Your task to perform on an android device: Open accessibility settings Image 0: 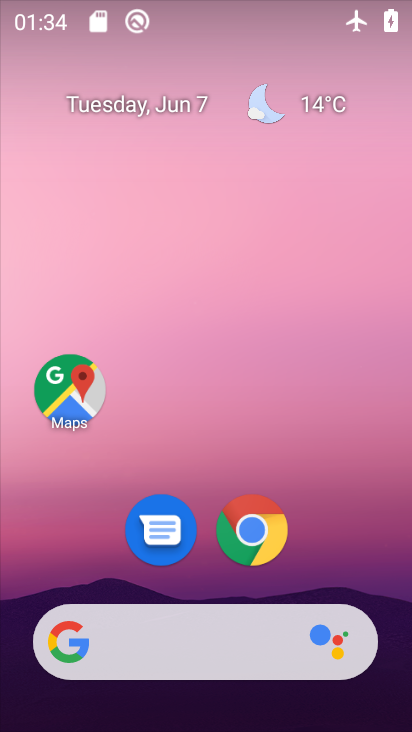
Step 0: drag from (308, 566) to (330, 221)
Your task to perform on an android device: Open accessibility settings Image 1: 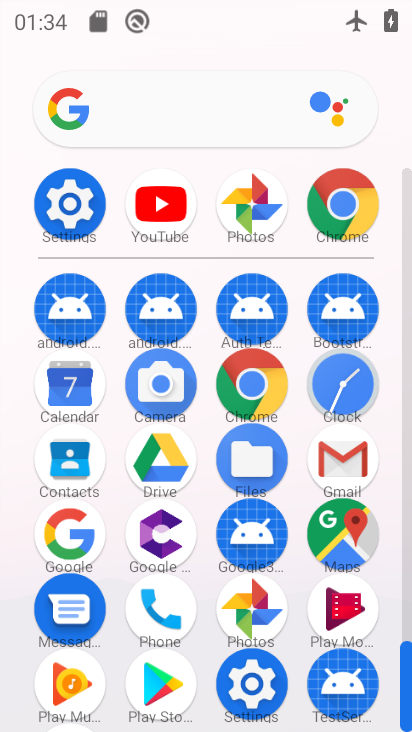
Step 1: click (61, 193)
Your task to perform on an android device: Open accessibility settings Image 2: 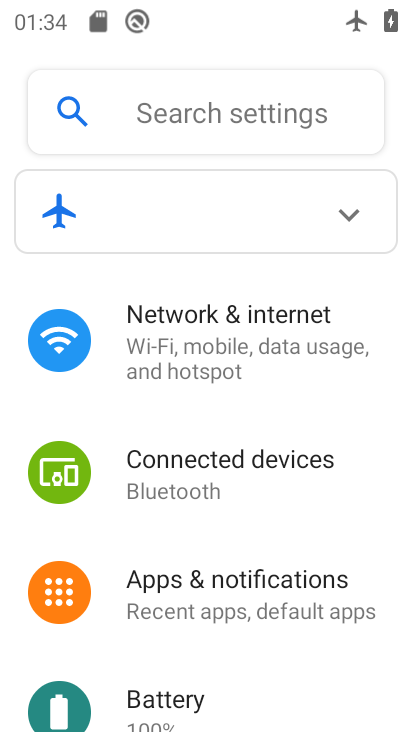
Step 2: drag from (198, 683) to (213, 337)
Your task to perform on an android device: Open accessibility settings Image 3: 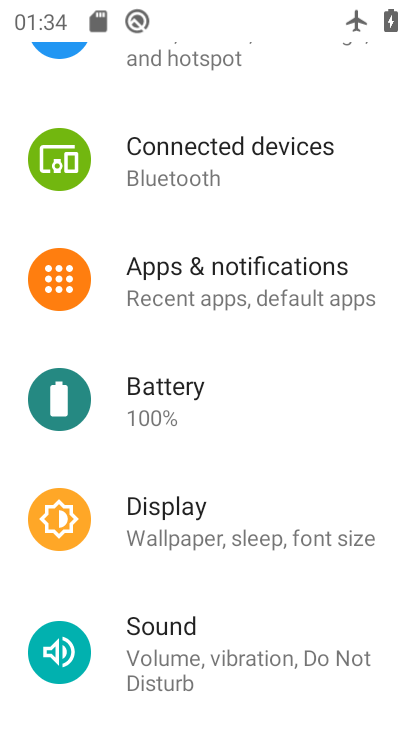
Step 3: drag from (202, 664) to (230, 216)
Your task to perform on an android device: Open accessibility settings Image 4: 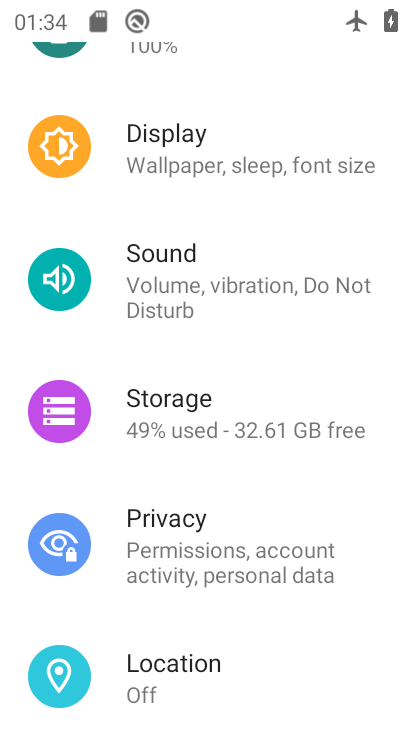
Step 4: drag from (177, 646) to (251, 171)
Your task to perform on an android device: Open accessibility settings Image 5: 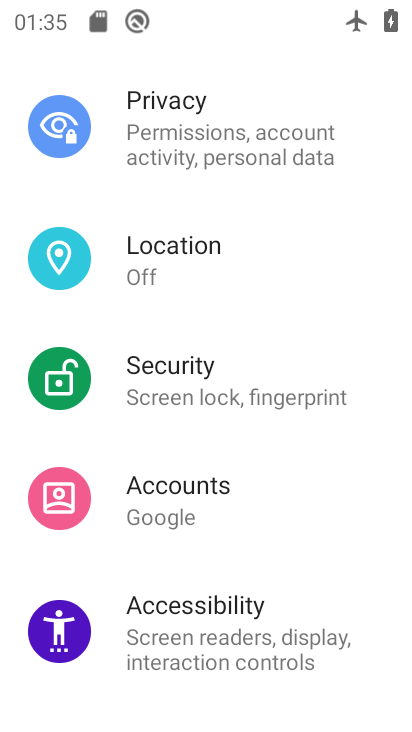
Step 5: click (171, 623)
Your task to perform on an android device: Open accessibility settings Image 6: 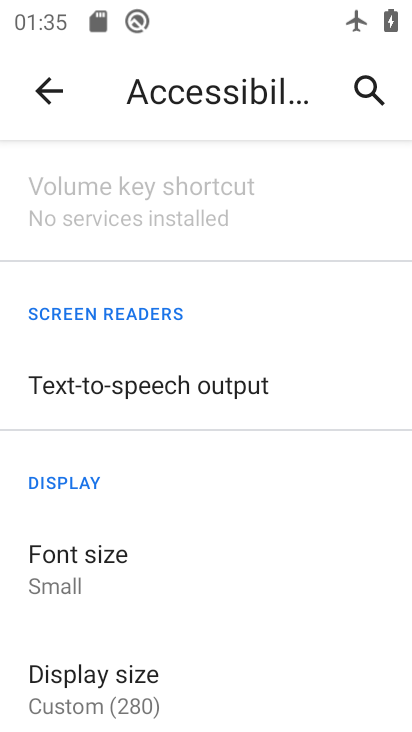
Step 6: task complete